Your task to perform on an android device: read, delete, or share a saved page in the chrome app Image 0: 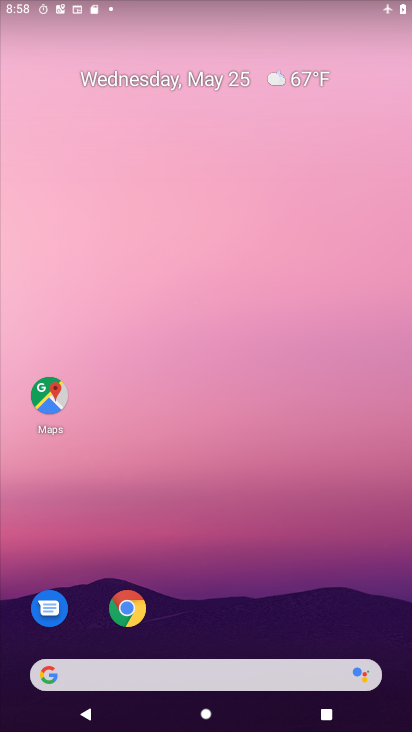
Step 0: click (131, 607)
Your task to perform on an android device: read, delete, or share a saved page in the chrome app Image 1: 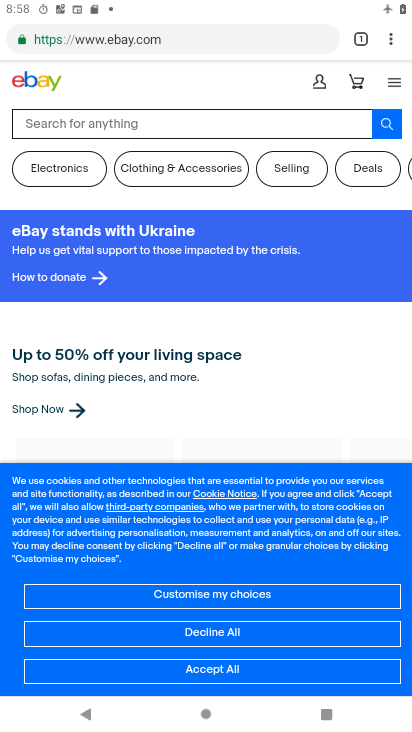
Step 1: click (392, 41)
Your task to perform on an android device: read, delete, or share a saved page in the chrome app Image 2: 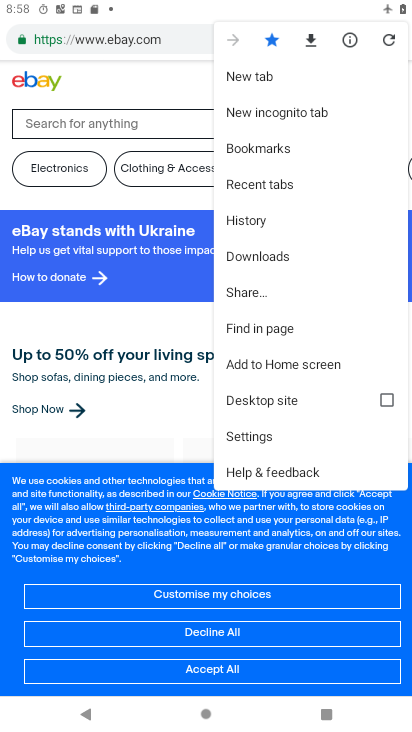
Step 2: click (251, 256)
Your task to perform on an android device: read, delete, or share a saved page in the chrome app Image 3: 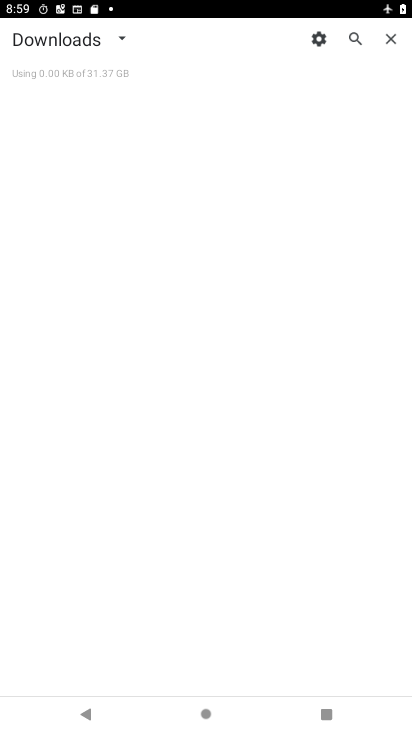
Step 3: click (120, 36)
Your task to perform on an android device: read, delete, or share a saved page in the chrome app Image 4: 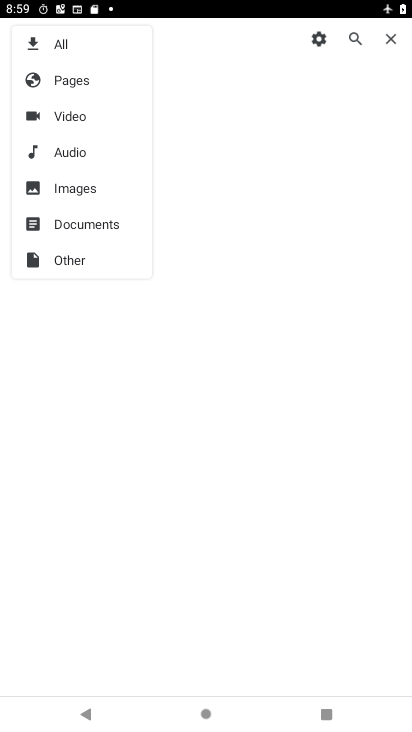
Step 4: click (70, 79)
Your task to perform on an android device: read, delete, or share a saved page in the chrome app Image 5: 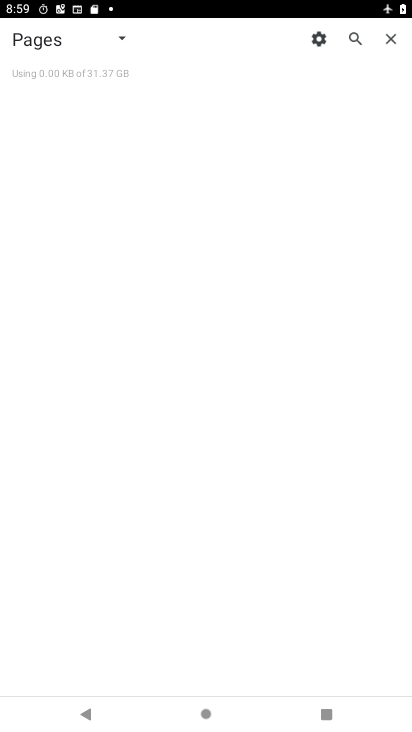
Step 5: task complete